Your task to perform on an android device: turn off javascript in the chrome app Image 0: 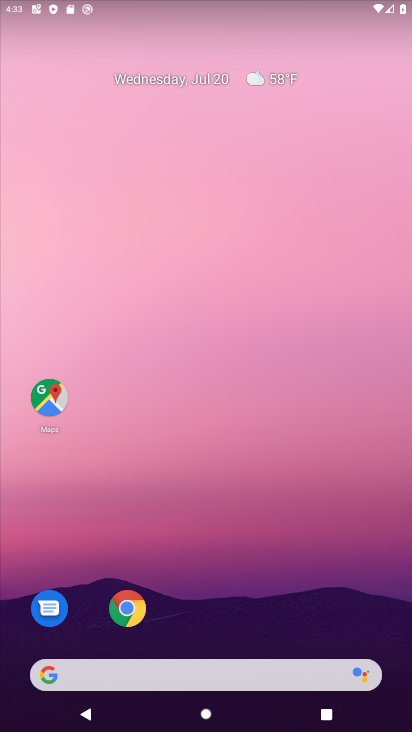
Step 0: click (136, 604)
Your task to perform on an android device: turn off javascript in the chrome app Image 1: 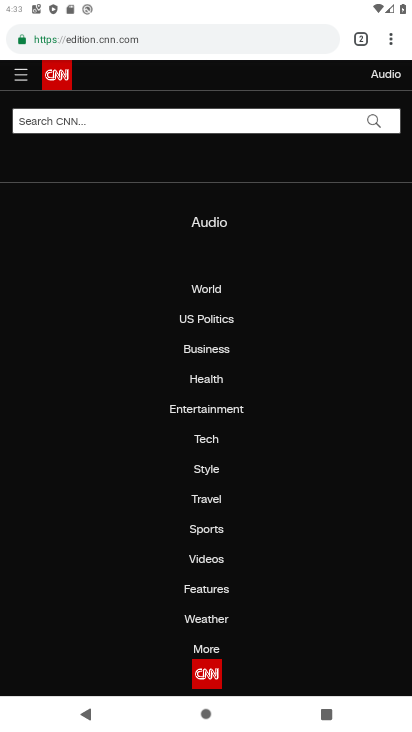
Step 1: click (389, 46)
Your task to perform on an android device: turn off javascript in the chrome app Image 2: 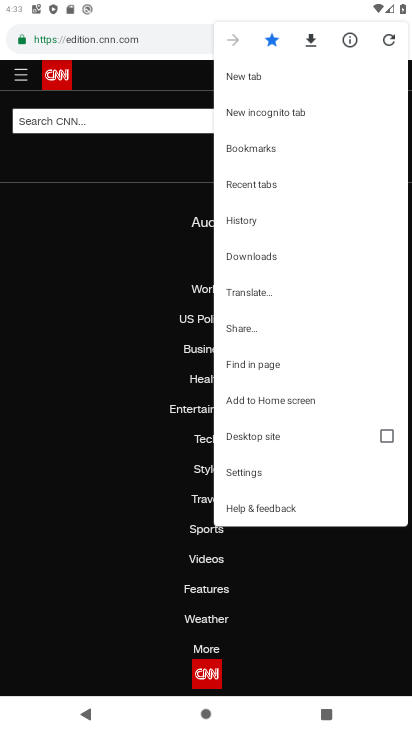
Step 2: click (266, 476)
Your task to perform on an android device: turn off javascript in the chrome app Image 3: 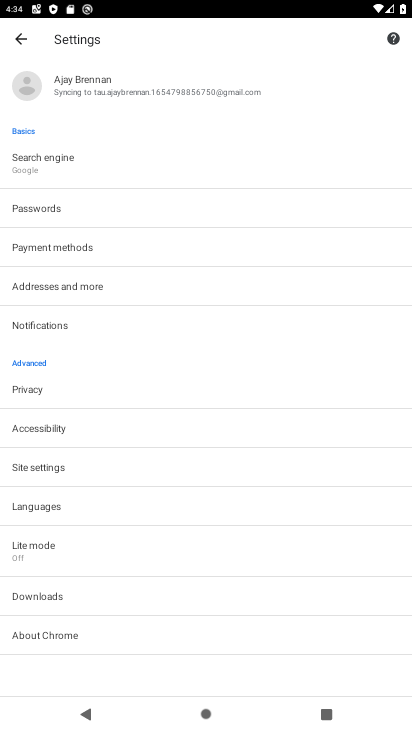
Step 3: click (97, 470)
Your task to perform on an android device: turn off javascript in the chrome app Image 4: 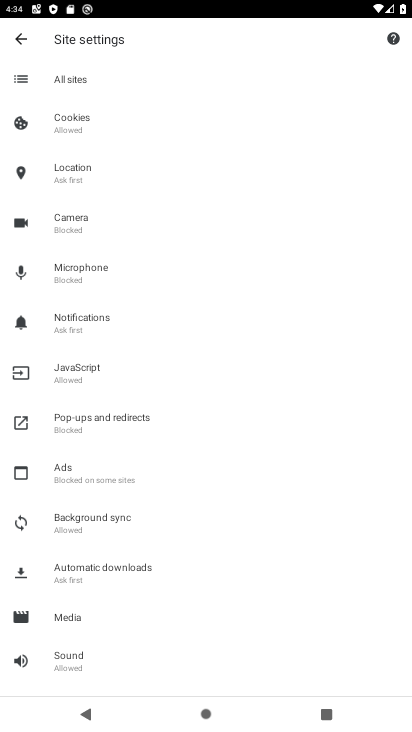
Step 4: click (51, 366)
Your task to perform on an android device: turn off javascript in the chrome app Image 5: 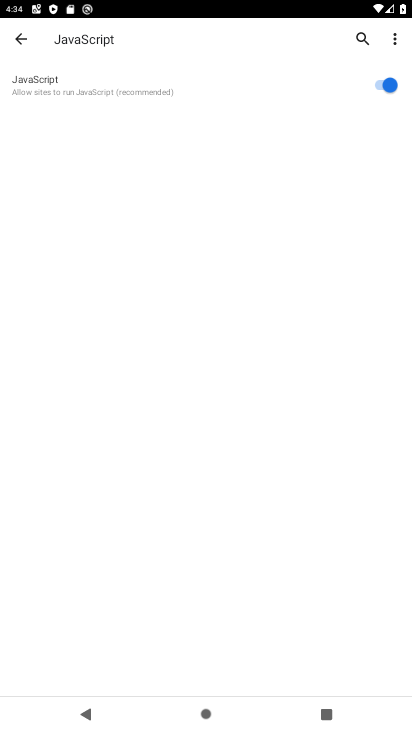
Step 5: click (387, 82)
Your task to perform on an android device: turn off javascript in the chrome app Image 6: 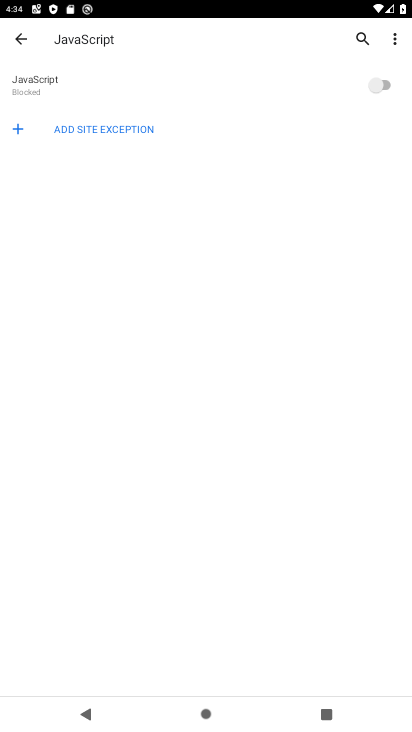
Step 6: task complete